Your task to perform on an android device: Is it going to rain today? Image 0: 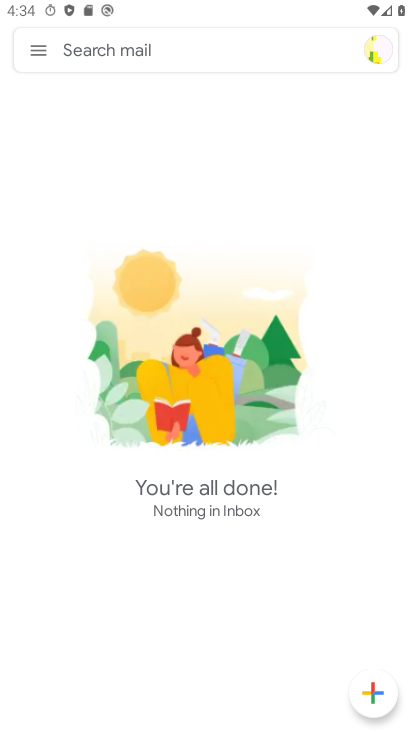
Step 0: press home button
Your task to perform on an android device: Is it going to rain today? Image 1: 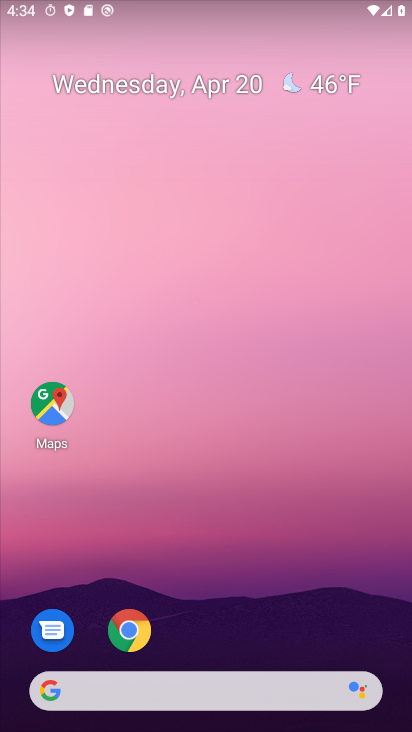
Step 1: drag from (149, 659) to (256, 157)
Your task to perform on an android device: Is it going to rain today? Image 2: 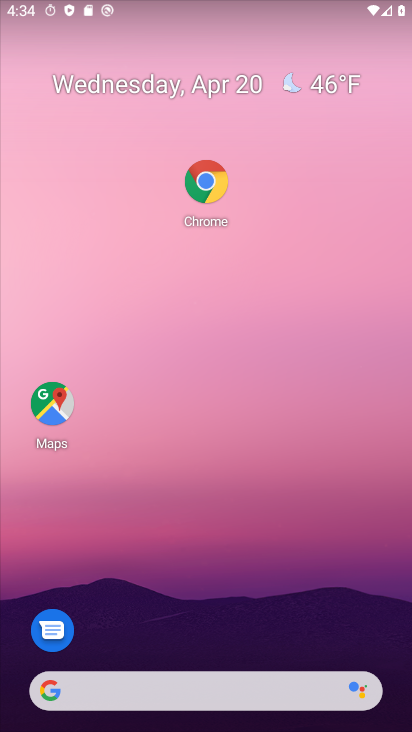
Step 2: drag from (166, 664) to (305, 135)
Your task to perform on an android device: Is it going to rain today? Image 3: 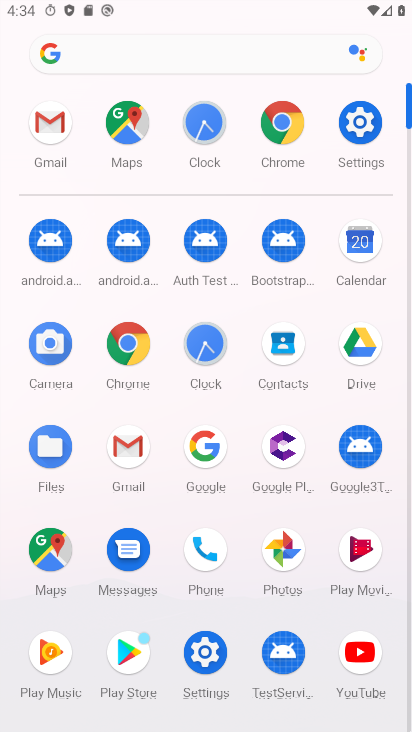
Step 3: click (214, 445)
Your task to perform on an android device: Is it going to rain today? Image 4: 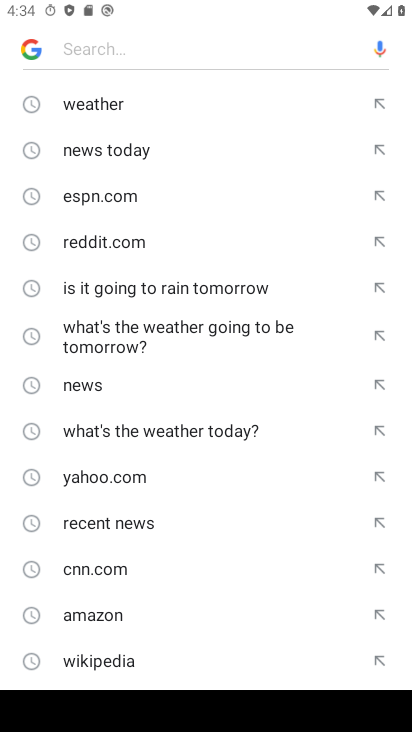
Step 4: click (141, 285)
Your task to perform on an android device: Is it going to rain today? Image 5: 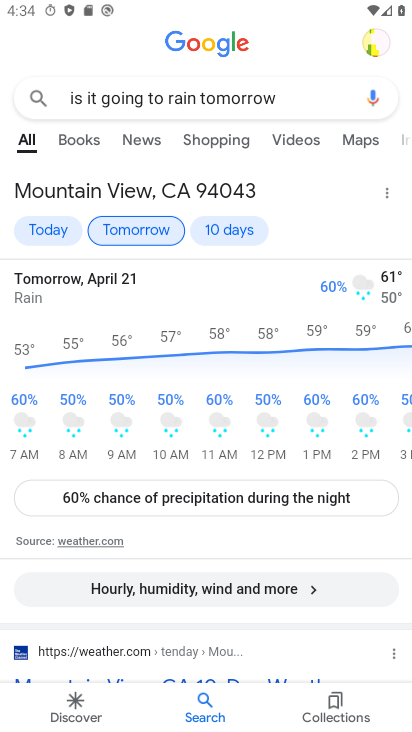
Step 5: click (49, 232)
Your task to perform on an android device: Is it going to rain today? Image 6: 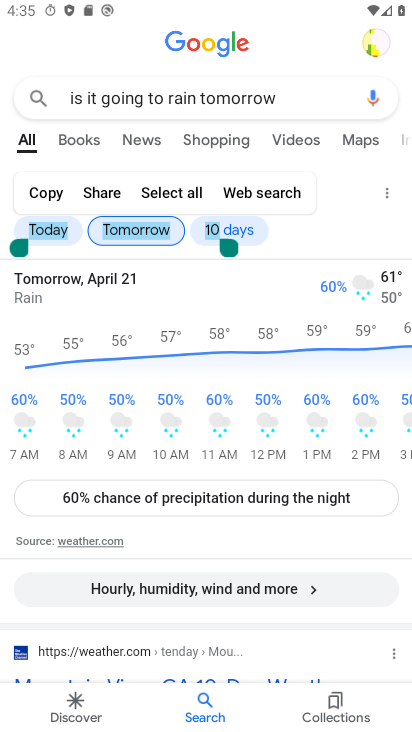
Step 6: click (49, 232)
Your task to perform on an android device: Is it going to rain today? Image 7: 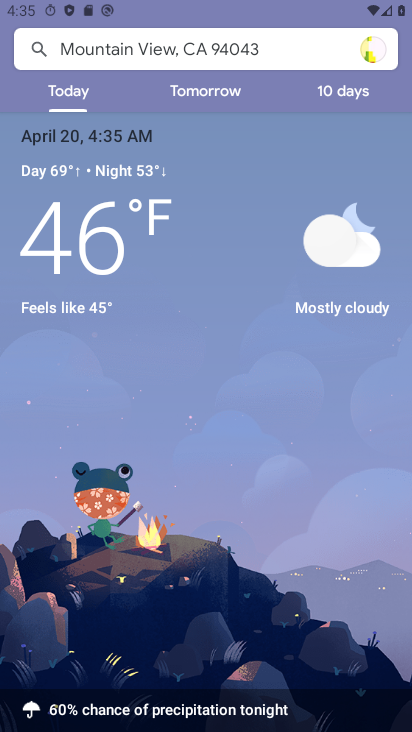
Step 7: task complete